Your task to perform on an android device: Open Chrome and go to the settings page Image 0: 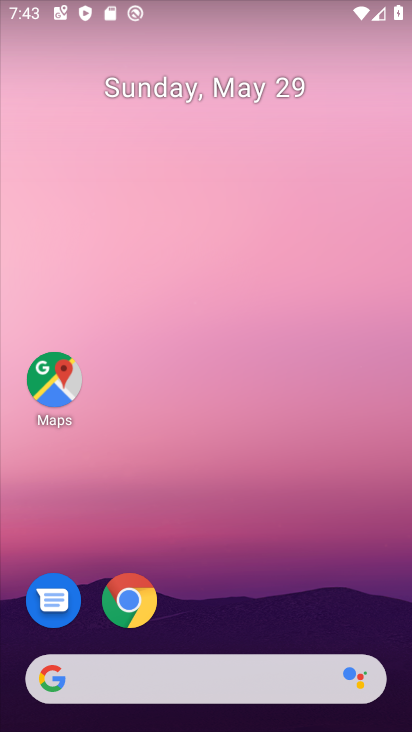
Step 0: click (138, 607)
Your task to perform on an android device: Open Chrome and go to the settings page Image 1: 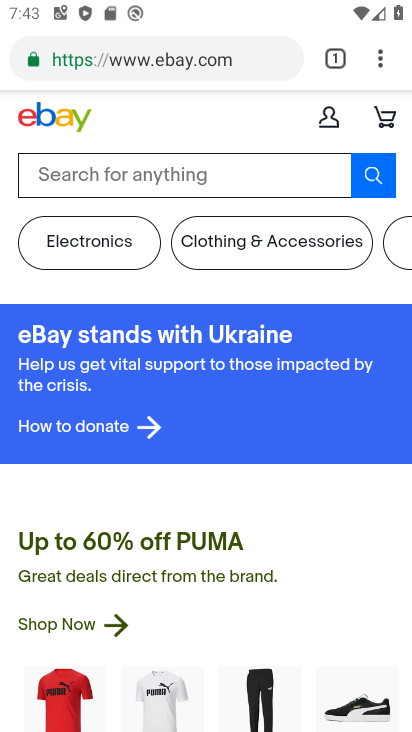
Step 1: click (371, 51)
Your task to perform on an android device: Open Chrome and go to the settings page Image 2: 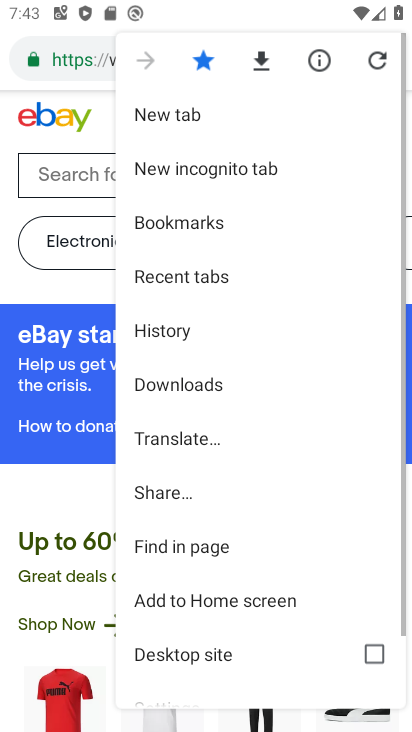
Step 2: drag from (225, 675) to (232, 481)
Your task to perform on an android device: Open Chrome and go to the settings page Image 3: 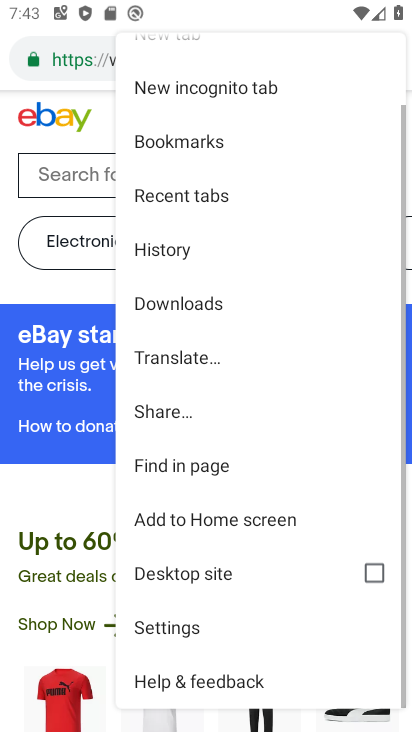
Step 3: click (164, 634)
Your task to perform on an android device: Open Chrome and go to the settings page Image 4: 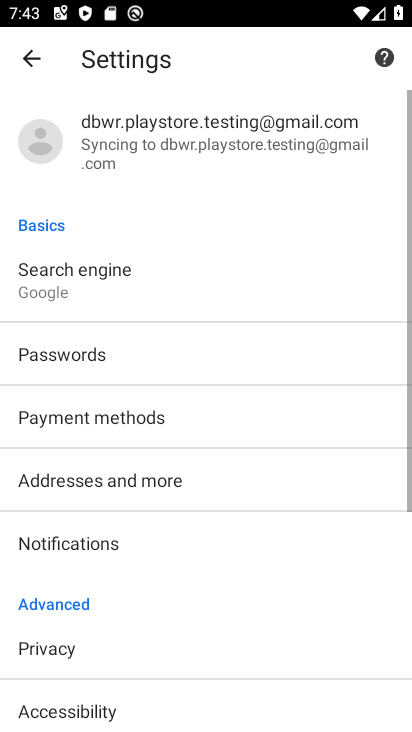
Step 4: task complete